Your task to perform on an android device: open app "Microsoft Authenticator" (install if not already installed) Image 0: 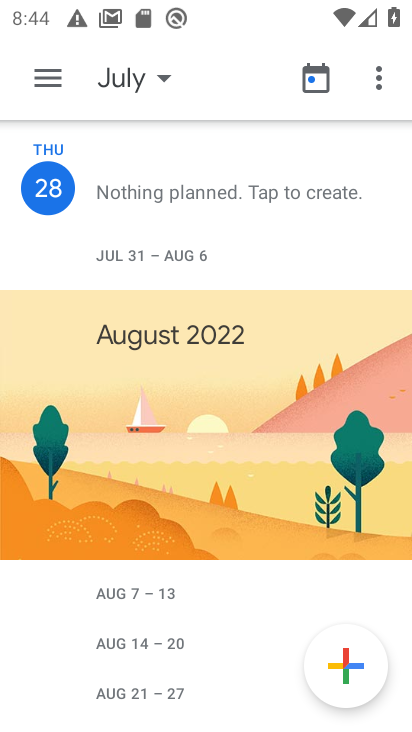
Step 0: press home button
Your task to perform on an android device: open app "Microsoft Authenticator" (install if not already installed) Image 1: 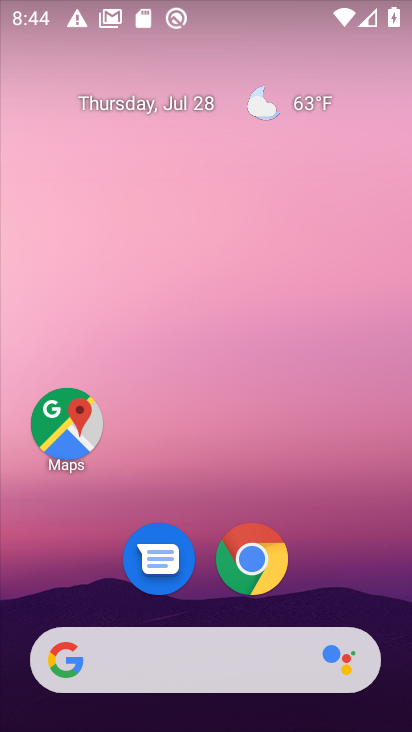
Step 1: drag from (321, 588) to (313, 28)
Your task to perform on an android device: open app "Microsoft Authenticator" (install if not already installed) Image 2: 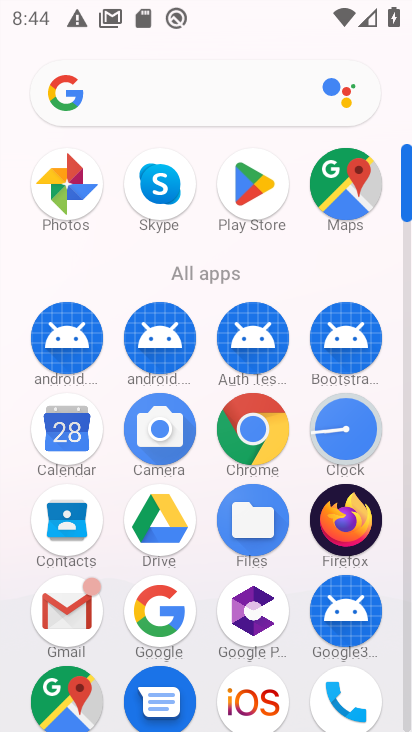
Step 2: click (245, 192)
Your task to perform on an android device: open app "Microsoft Authenticator" (install if not already installed) Image 3: 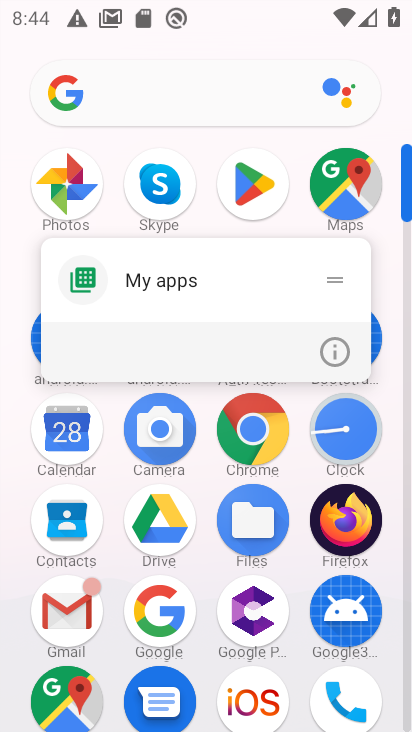
Step 3: click (245, 192)
Your task to perform on an android device: open app "Microsoft Authenticator" (install if not already installed) Image 4: 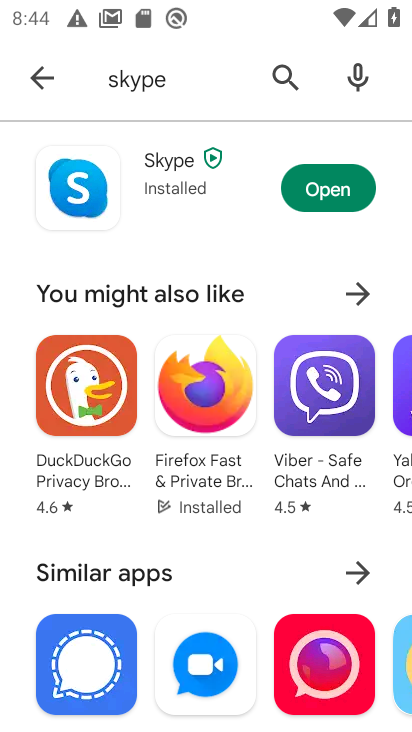
Step 4: click (296, 77)
Your task to perform on an android device: open app "Microsoft Authenticator" (install if not already installed) Image 5: 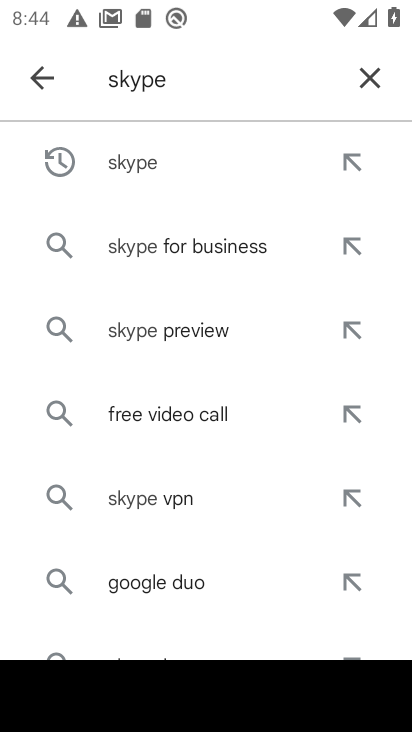
Step 5: click (352, 86)
Your task to perform on an android device: open app "Microsoft Authenticator" (install if not already installed) Image 6: 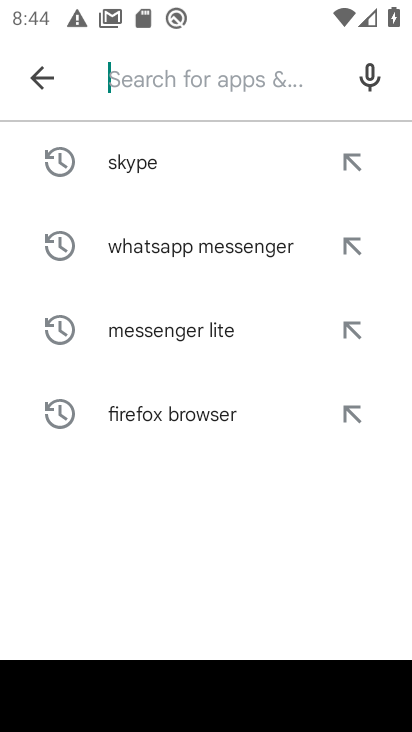
Step 6: click (193, 80)
Your task to perform on an android device: open app "Microsoft Authenticator" (install if not already installed) Image 7: 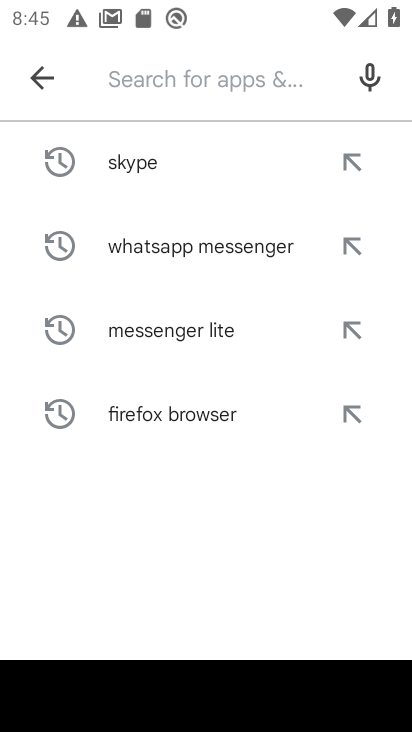
Step 7: type "Microsoft Authenticator"
Your task to perform on an android device: open app "Microsoft Authenticator" (install if not already installed) Image 8: 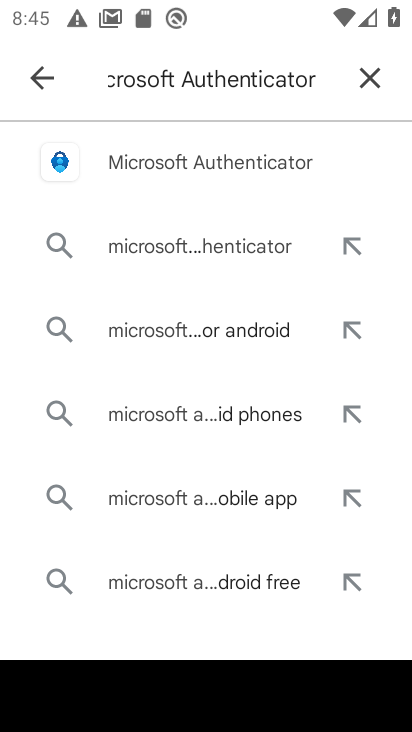
Step 8: click (190, 169)
Your task to perform on an android device: open app "Microsoft Authenticator" (install if not already installed) Image 9: 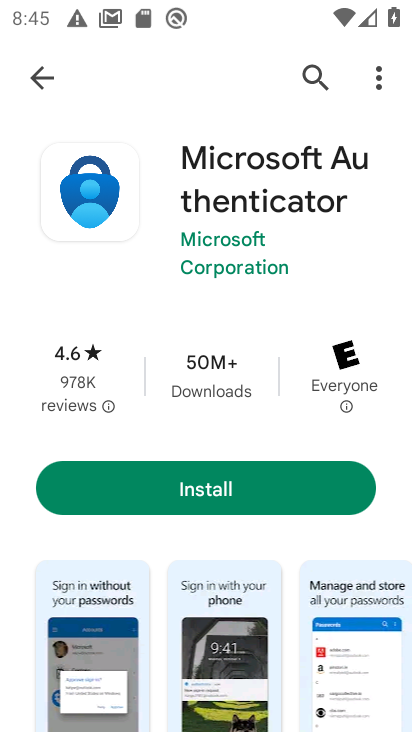
Step 9: click (210, 487)
Your task to perform on an android device: open app "Microsoft Authenticator" (install if not already installed) Image 10: 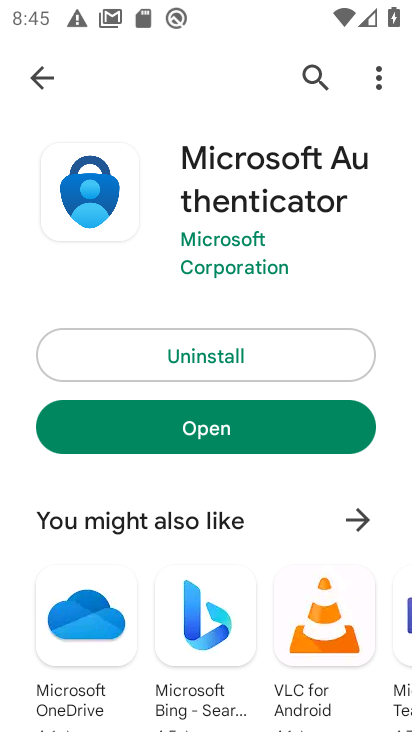
Step 10: click (183, 435)
Your task to perform on an android device: open app "Microsoft Authenticator" (install if not already installed) Image 11: 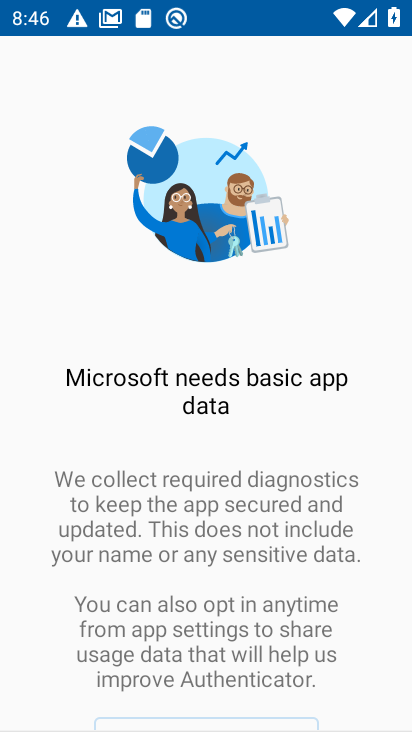
Step 11: task complete